Your task to perform on an android device: Open calendar and show me the second week of next month Image 0: 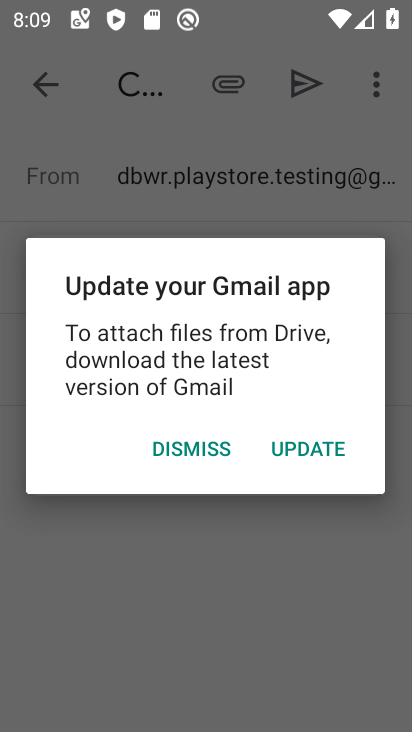
Step 0: press home button
Your task to perform on an android device: Open calendar and show me the second week of next month Image 1: 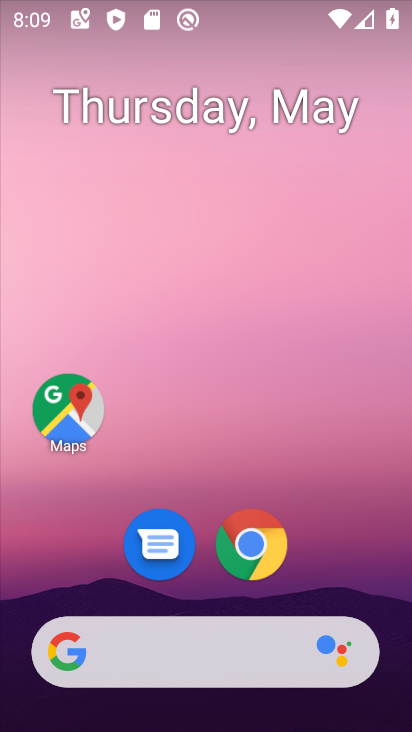
Step 1: drag from (345, 592) to (297, 142)
Your task to perform on an android device: Open calendar and show me the second week of next month Image 2: 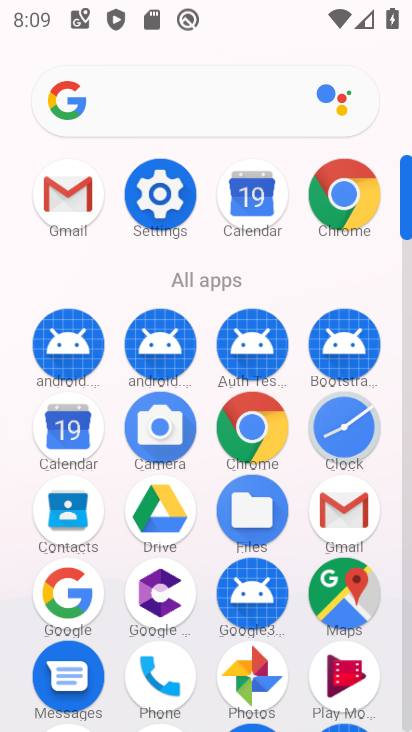
Step 2: click (78, 445)
Your task to perform on an android device: Open calendar and show me the second week of next month Image 3: 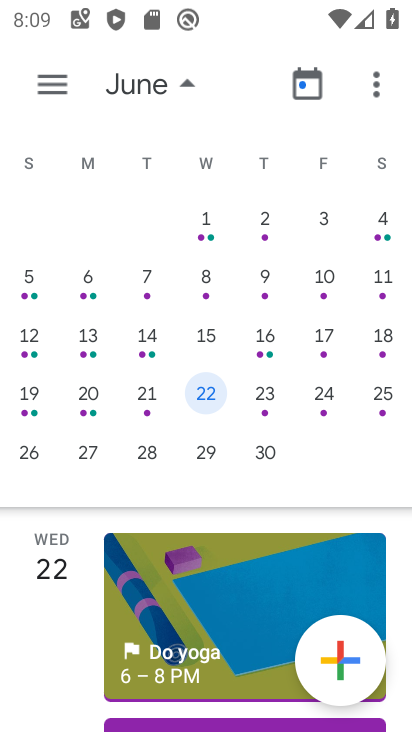
Step 3: click (197, 273)
Your task to perform on an android device: Open calendar and show me the second week of next month Image 4: 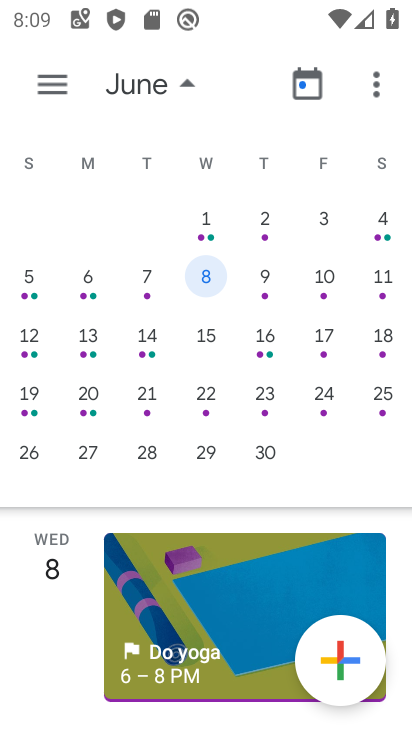
Step 4: task complete